Your task to perform on an android device: Open the map Image 0: 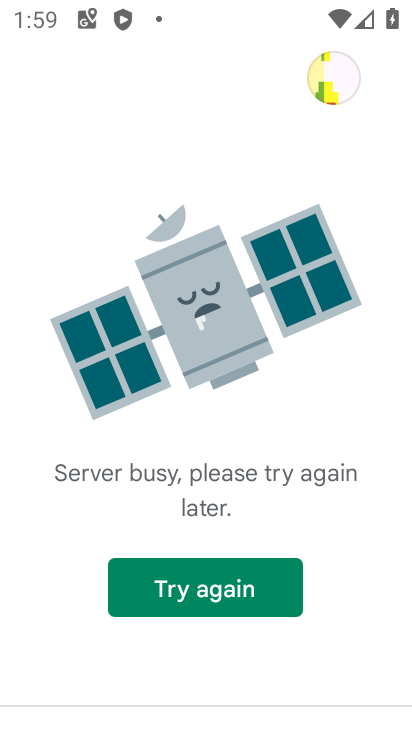
Step 0: press home button
Your task to perform on an android device: Open the map Image 1: 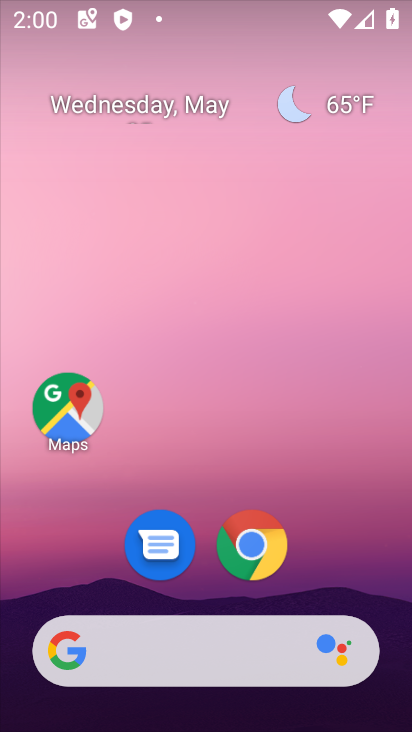
Step 1: click (63, 402)
Your task to perform on an android device: Open the map Image 2: 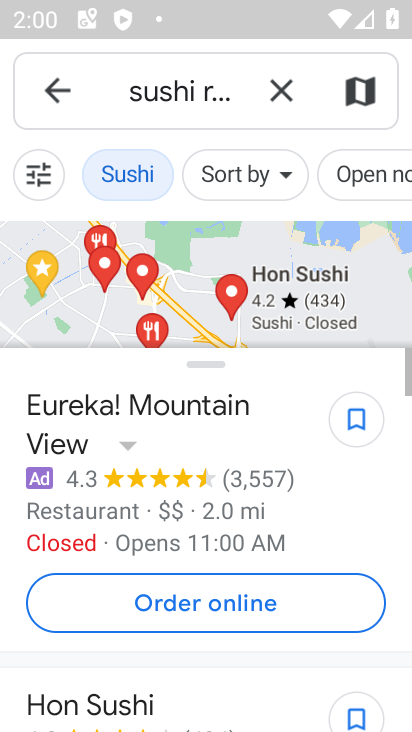
Step 2: task complete